Your task to perform on an android device: turn on javascript in the chrome app Image 0: 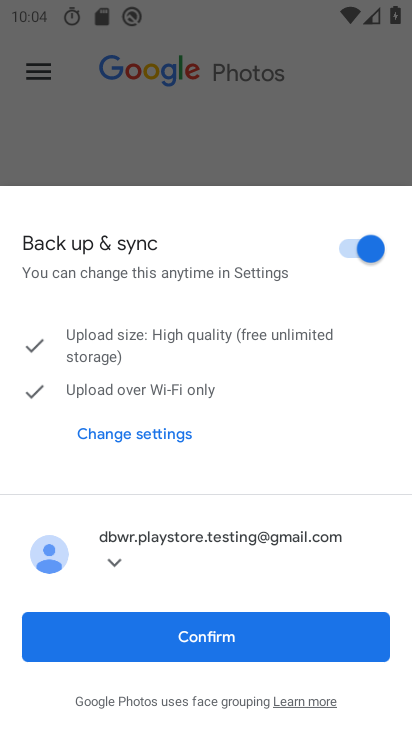
Step 0: press home button
Your task to perform on an android device: turn on javascript in the chrome app Image 1: 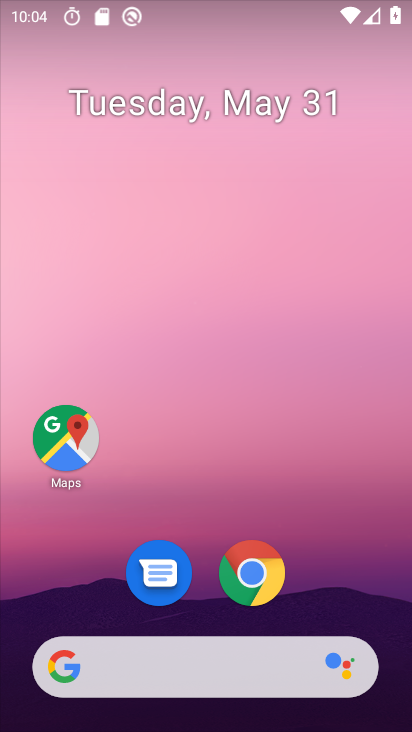
Step 1: click (246, 587)
Your task to perform on an android device: turn on javascript in the chrome app Image 2: 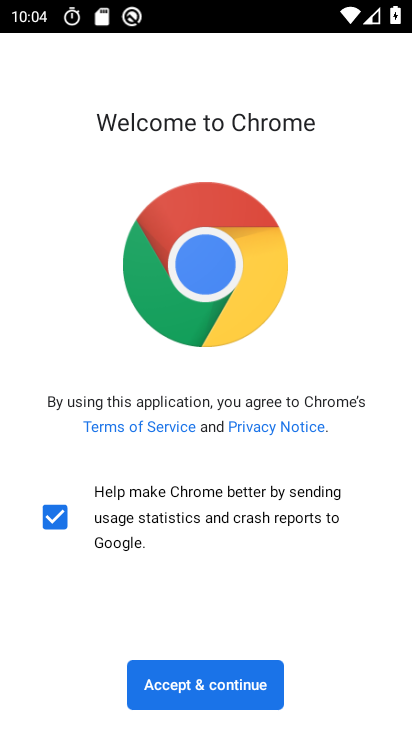
Step 2: click (168, 692)
Your task to perform on an android device: turn on javascript in the chrome app Image 3: 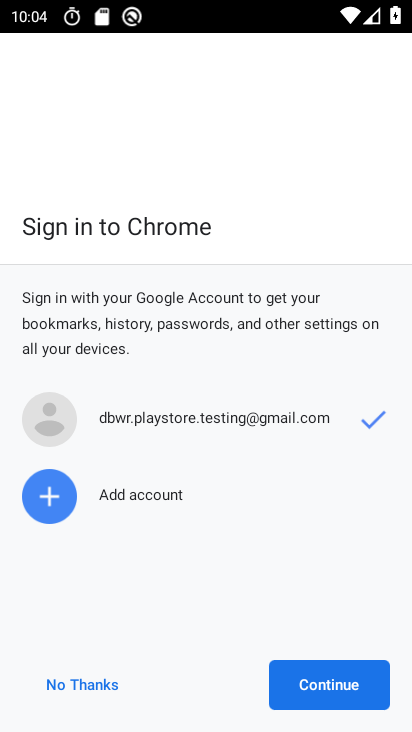
Step 3: click (333, 698)
Your task to perform on an android device: turn on javascript in the chrome app Image 4: 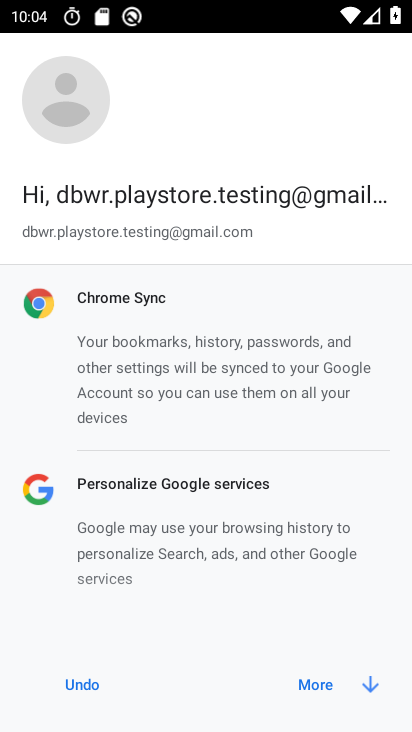
Step 4: click (333, 698)
Your task to perform on an android device: turn on javascript in the chrome app Image 5: 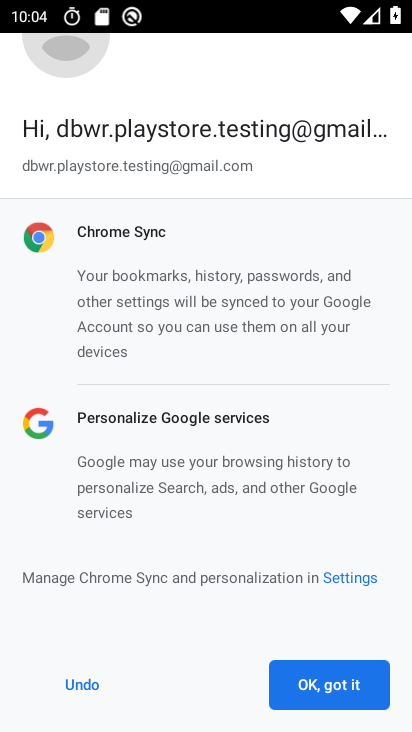
Step 5: click (333, 698)
Your task to perform on an android device: turn on javascript in the chrome app Image 6: 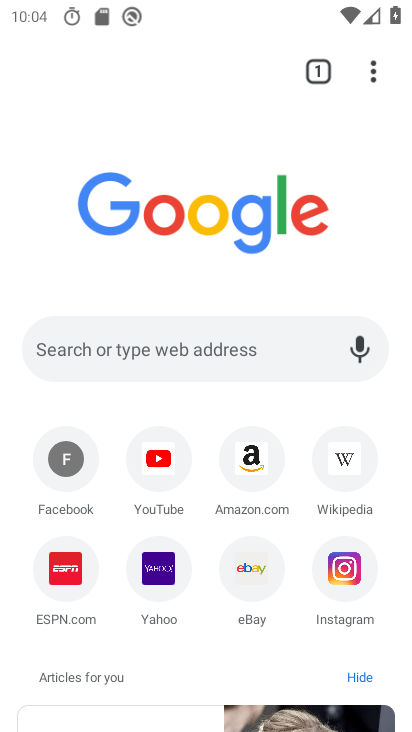
Step 6: click (381, 71)
Your task to perform on an android device: turn on javascript in the chrome app Image 7: 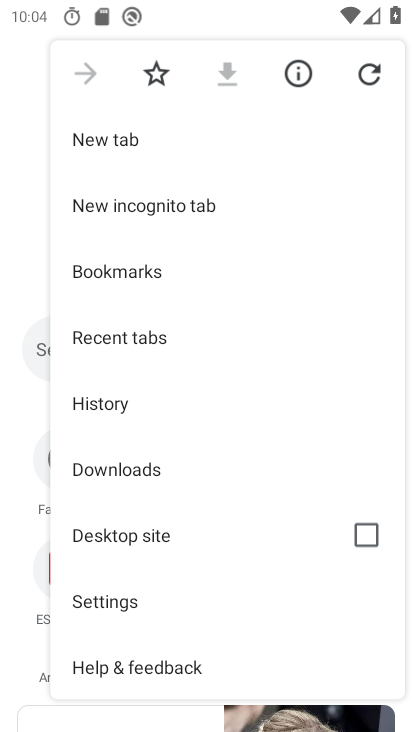
Step 7: click (143, 602)
Your task to perform on an android device: turn on javascript in the chrome app Image 8: 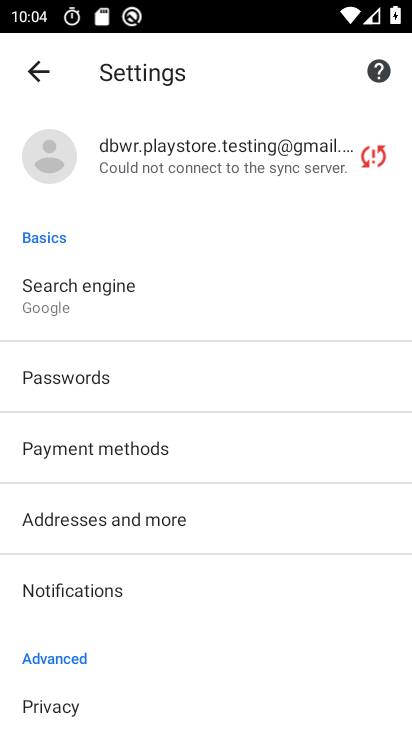
Step 8: drag from (143, 602) to (219, 135)
Your task to perform on an android device: turn on javascript in the chrome app Image 9: 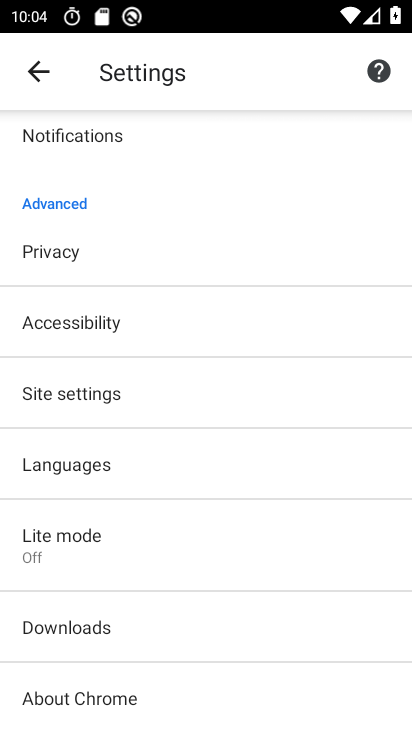
Step 9: drag from (73, 632) to (163, 131)
Your task to perform on an android device: turn on javascript in the chrome app Image 10: 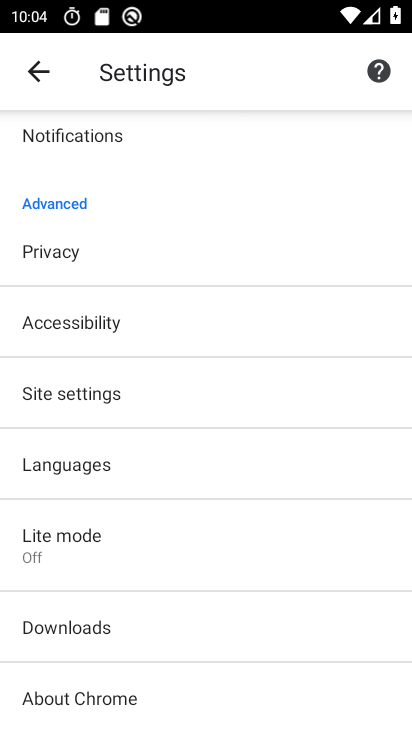
Step 10: drag from (138, 678) to (176, 305)
Your task to perform on an android device: turn on javascript in the chrome app Image 11: 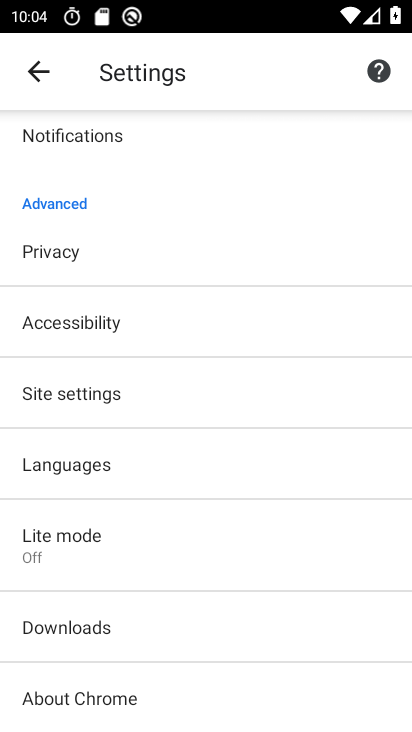
Step 11: click (148, 391)
Your task to perform on an android device: turn on javascript in the chrome app Image 12: 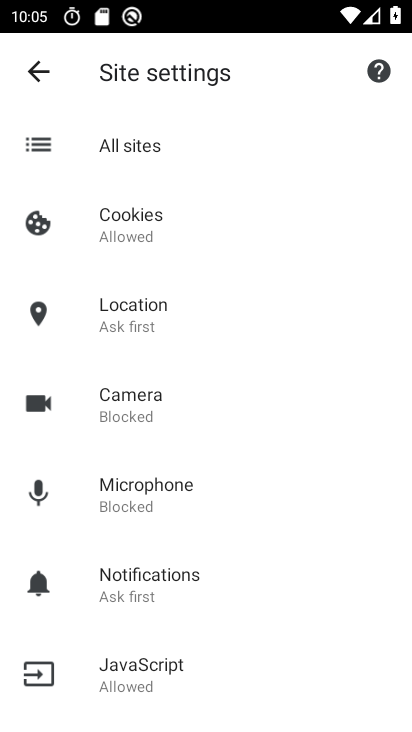
Step 12: click (145, 651)
Your task to perform on an android device: turn on javascript in the chrome app Image 13: 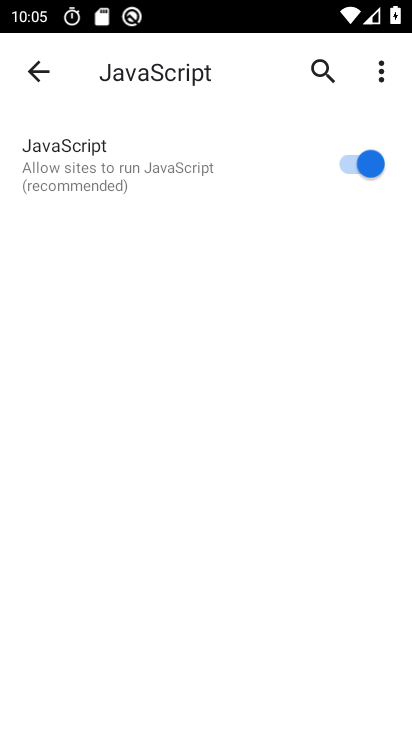
Step 13: task complete